Your task to perform on an android device: turn on the 24-hour format for clock Image 0: 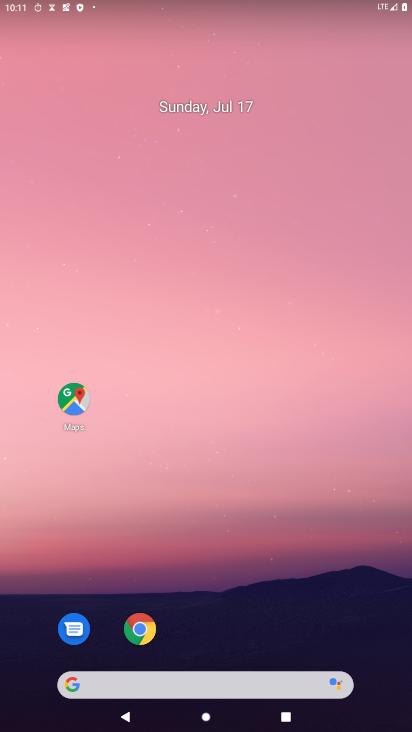
Step 0: drag from (221, 725) to (224, 52)
Your task to perform on an android device: turn on the 24-hour format for clock Image 1: 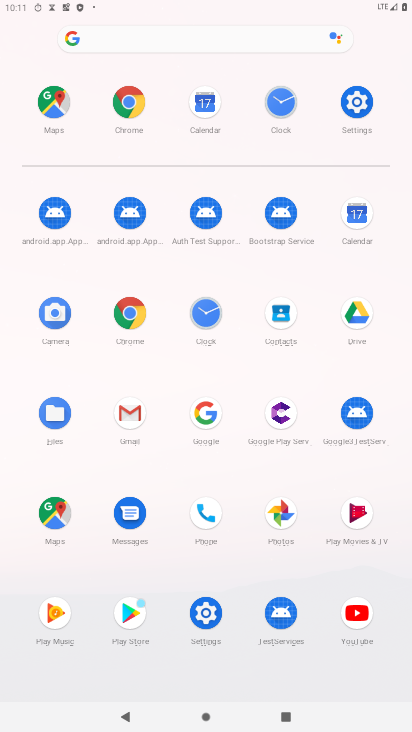
Step 1: click (209, 312)
Your task to perform on an android device: turn on the 24-hour format for clock Image 2: 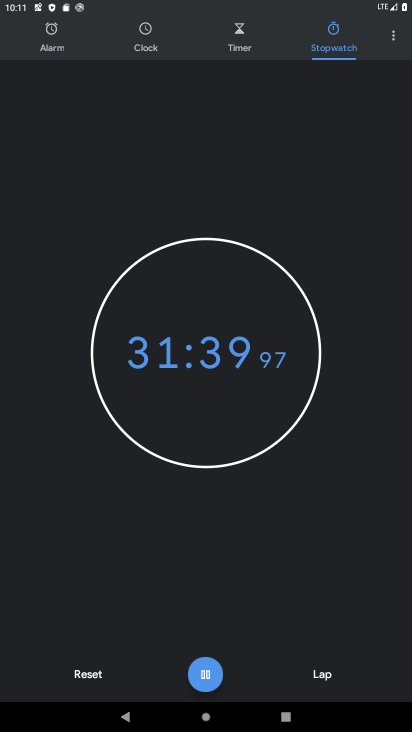
Step 2: click (393, 41)
Your task to perform on an android device: turn on the 24-hour format for clock Image 3: 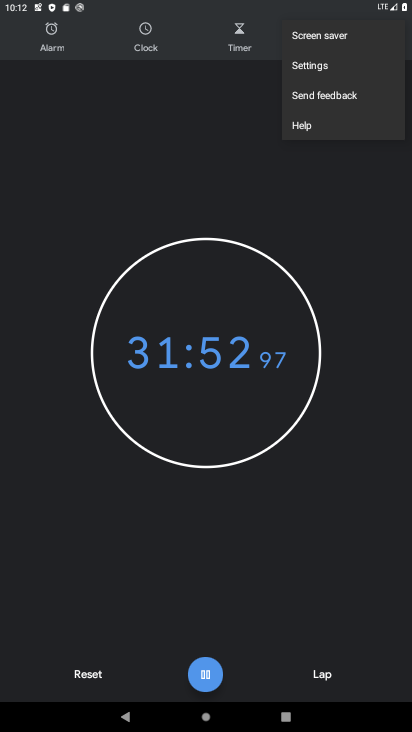
Step 3: click (305, 66)
Your task to perform on an android device: turn on the 24-hour format for clock Image 4: 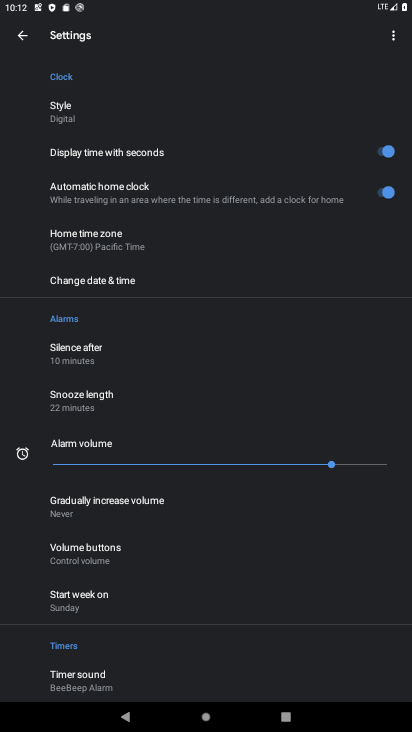
Step 4: click (121, 279)
Your task to perform on an android device: turn on the 24-hour format for clock Image 5: 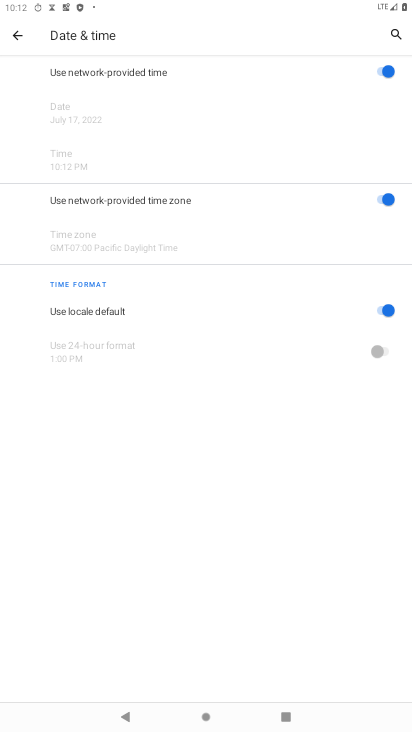
Step 5: click (383, 309)
Your task to perform on an android device: turn on the 24-hour format for clock Image 6: 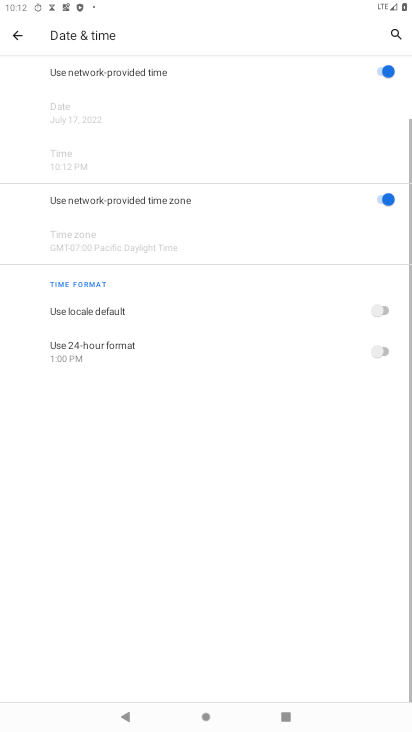
Step 6: click (387, 351)
Your task to perform on an android device: turn on the 24-hour format for clock Image 7: 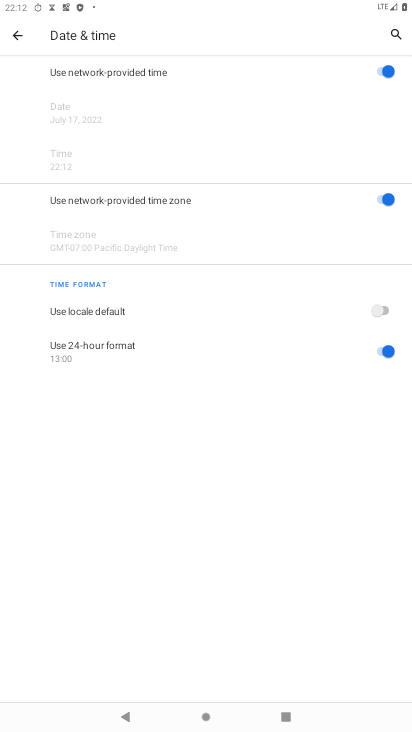
Step 7: task complete